Your task to perform on an android device: Open the Play Movies app and select the watchlist tab. Image 0: 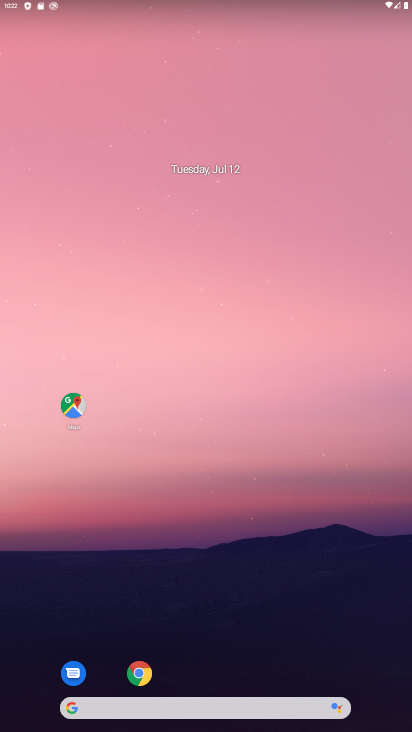
Step 0: drag from (283, 630) to (238, 93)
Your task to perform on an android device: Open the Play Movies app and select the watchlist tab. Image 1: 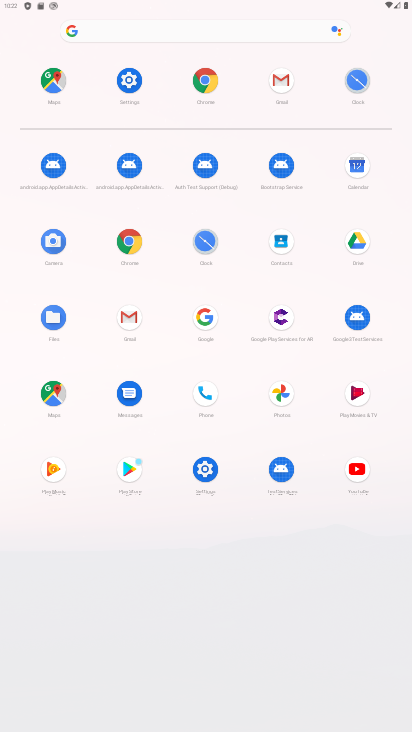
Step 1: click (358, 396)
Your task to perform on an android device: Open the Play Movies app and select the watchlist tab. Image 2: 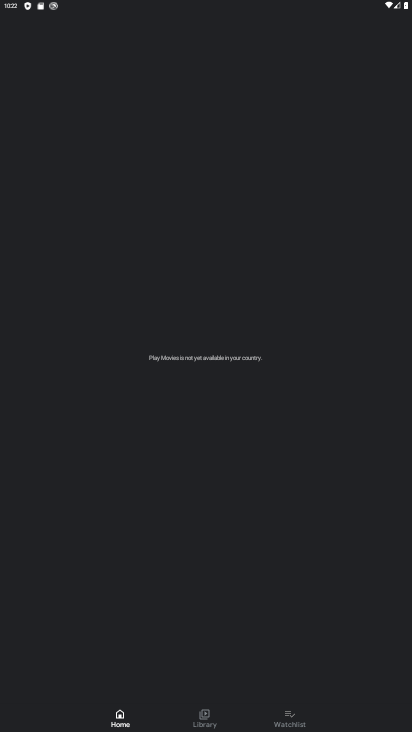
Step 2: click (293, 707)
Your task to perform on an android device: Open the Play Movies app and select the watchlist tab. Image 3: 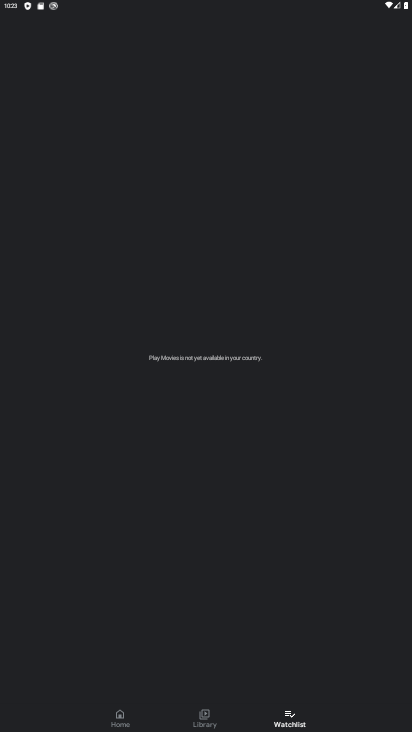
Step 3: task complete